Your task to perform on an android device: change alarm snooze length Image 0: 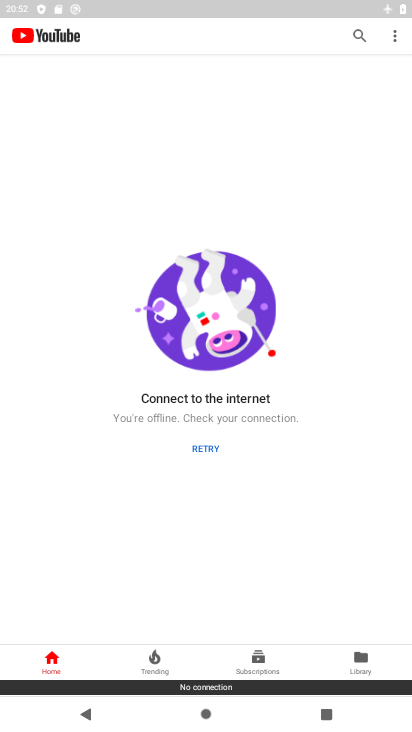
Step 0: press home button
Your task to perform on an android device: change alarm snooze length Image 1: 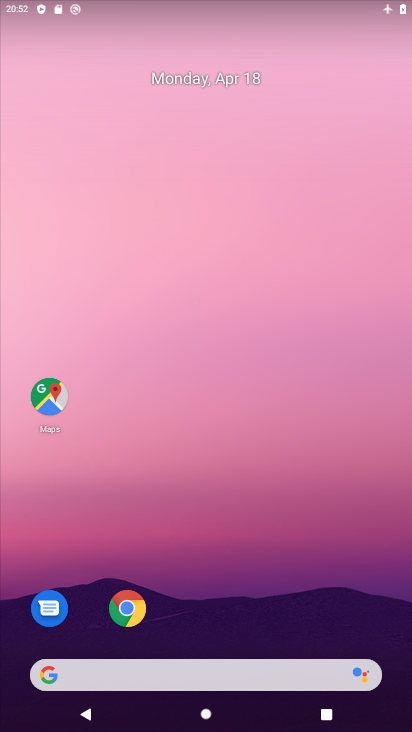
Step 1: drag from (220, 523) to (282, 245)
Your task to perform on an android device: change alarm snooze length Image 2: 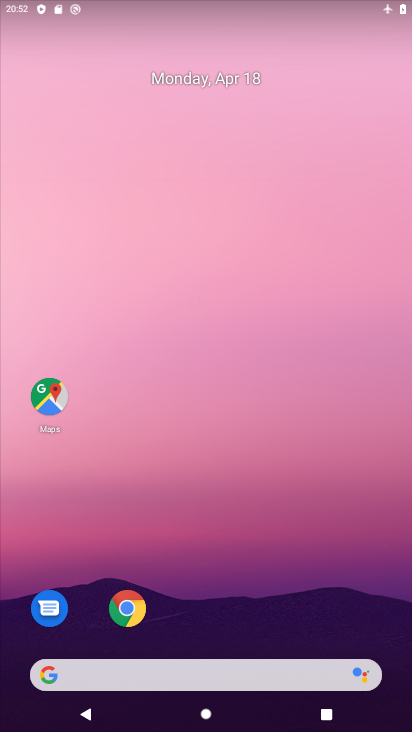
Step 2: drag from (196, 578) to (279, 89)
Your task to perform on an android device: change alarm snooze length Image 3: 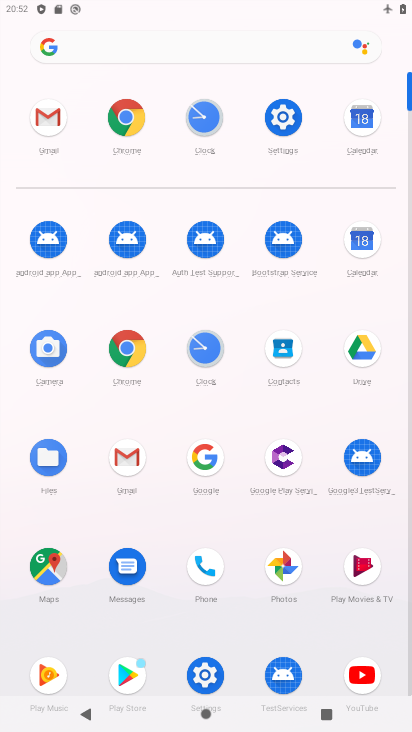
Step 3: click (206, 114)
Your task to perform on an android device: change alarm snooze length Image 4: 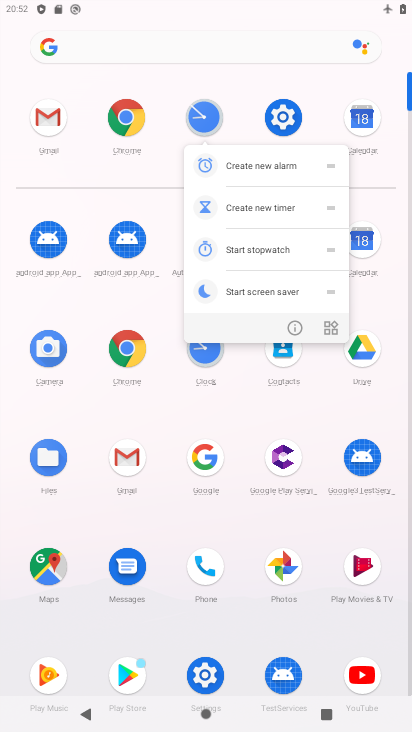
Step 4: click (209, 117)
Your task to perform on an android device: change alarm snooze length Image 5: 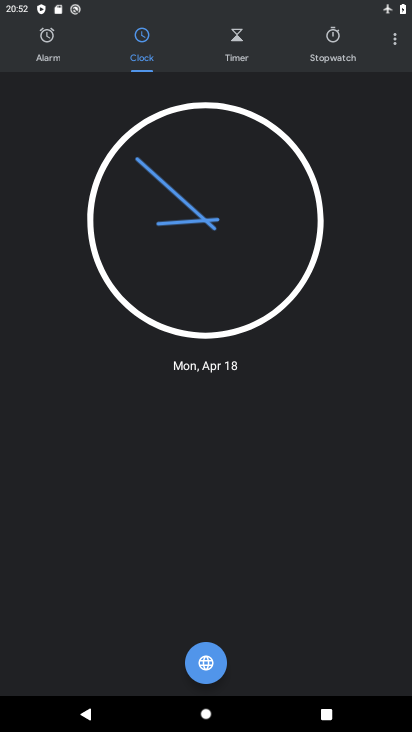
Step 5: click (393, 43)
Your task to perform on an android device: change alarm snooze length Image 6: 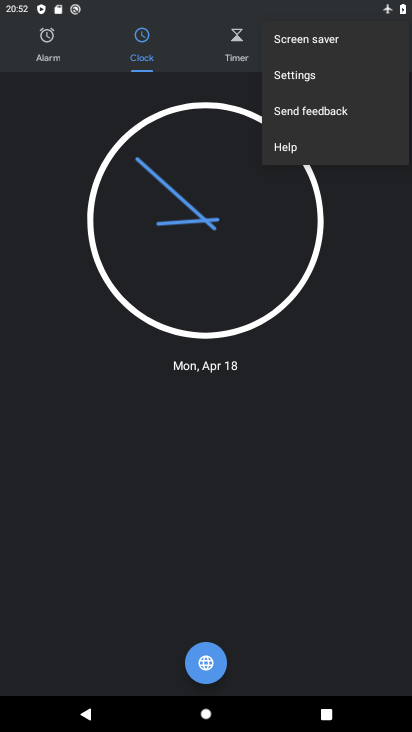
Step 6: click (292, 78)
Your task to perform on an android device: change alarm snooze length Image 7: 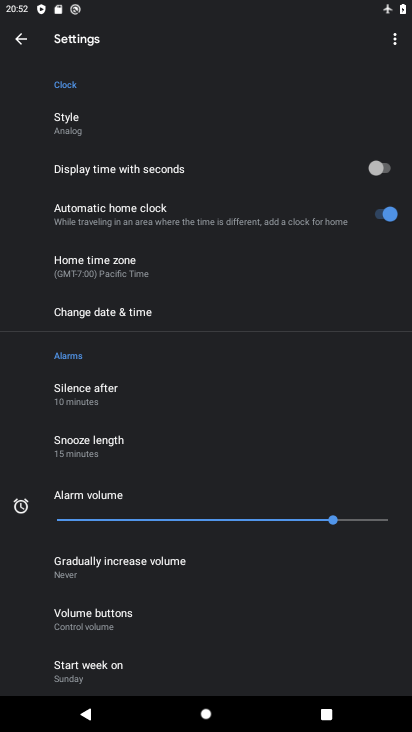
Step 7: click (133, 447)
Your task to perform on an android device: change alarm snooze length Image 8: 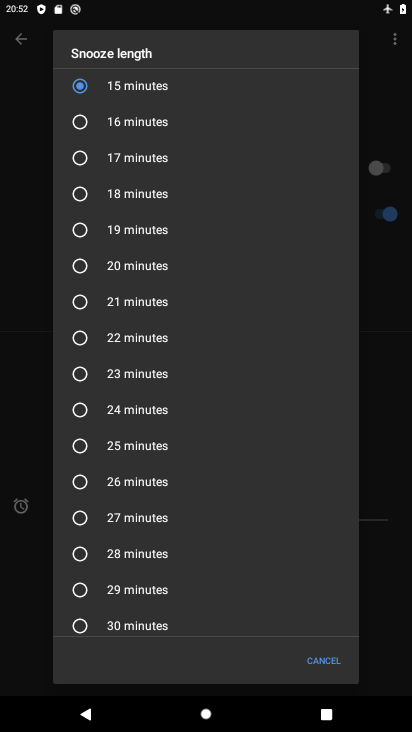
Step 8: click (79, 154)
Your task to perform on an android device: change alarm snooze length Image 9: 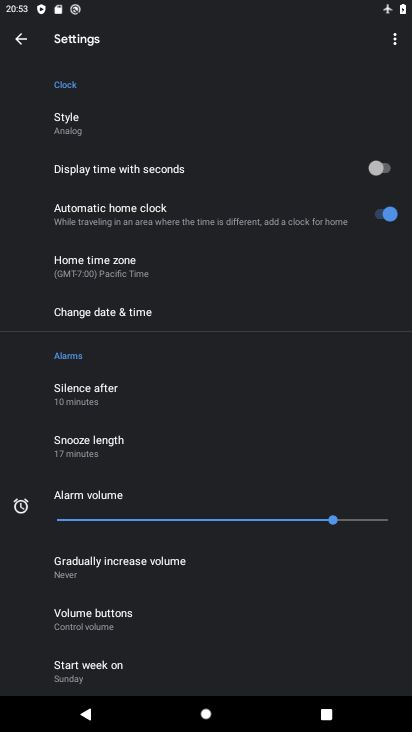
Step 9: task complete